Your task to perform on an android device: turn off sleep mode Image 0: 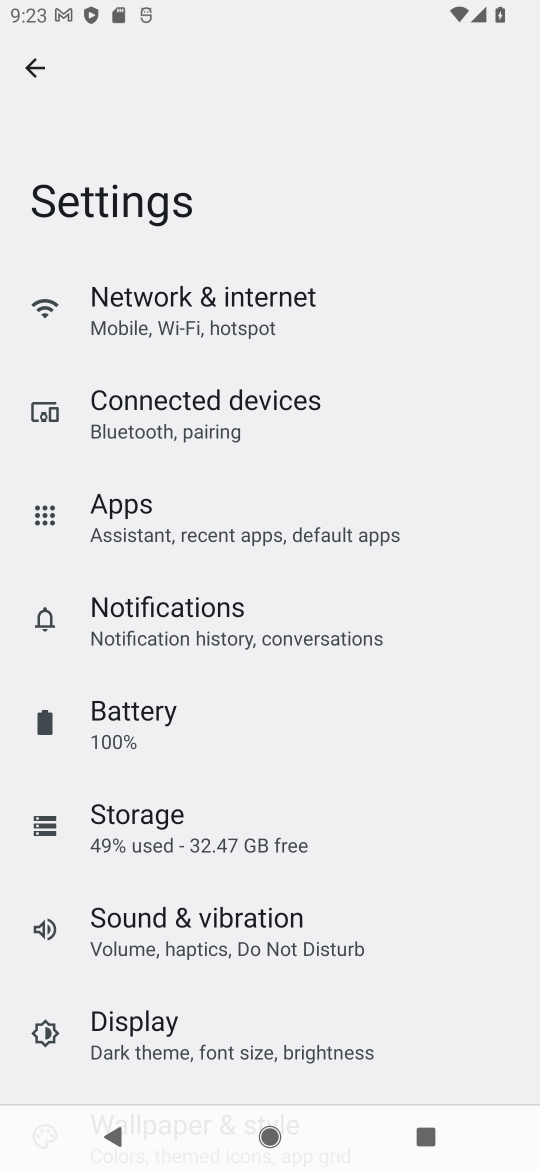
Step 0: press home button
Your task to perform on an android device: turn off sleep mode Image 1: 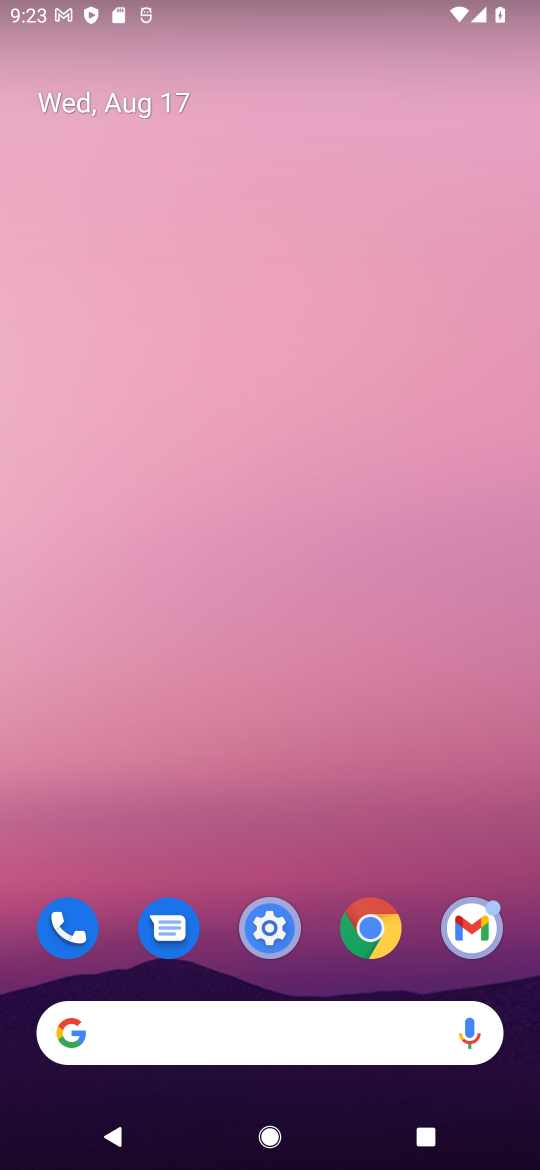
Step 1: click (329, 868)
Your task to perform on an android device: turn off sleep mode Image 2: 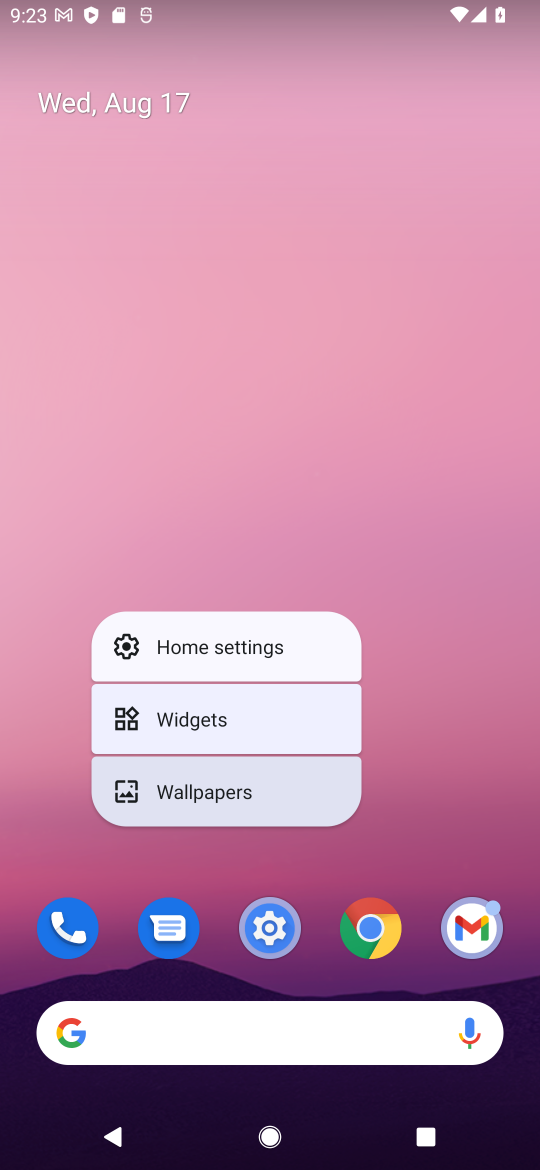
Step 2: click (254, 941)
Your task to perform on an android device: turn off sleep mode Image 3: 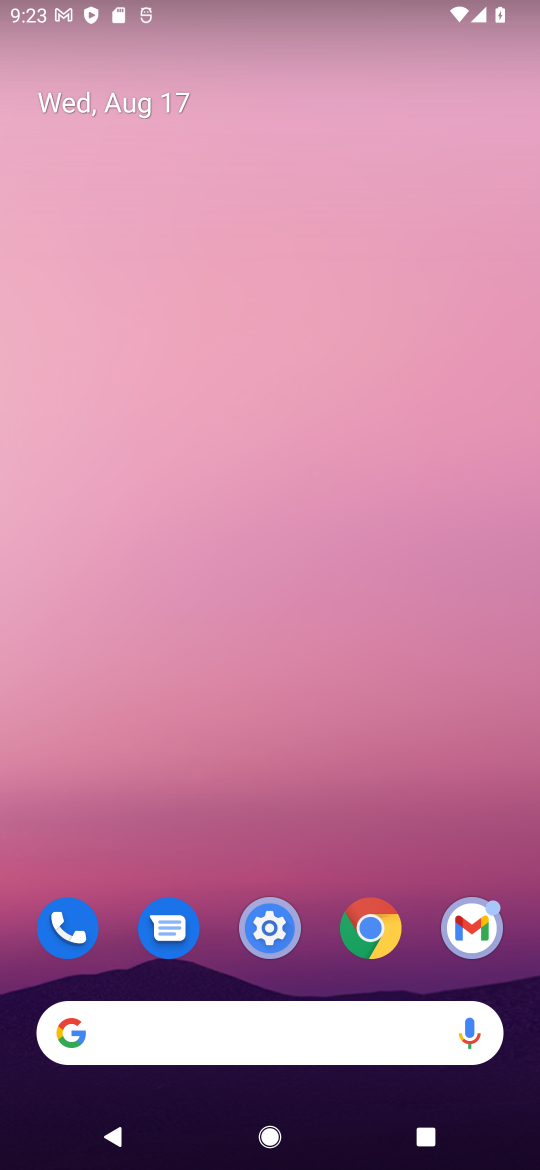
Step 3: click (254, 941)
Your task to perform on an android device: turn off sleep mode Image 4: 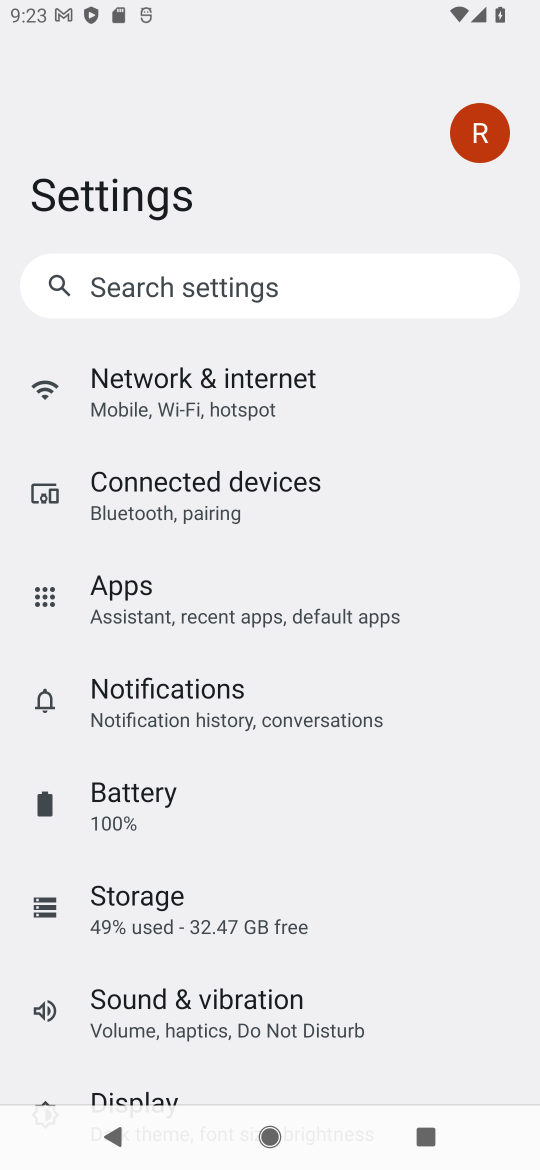
Step 4: drag from (227, 962) to (179, 808)
Your task to perform on an android device: turn off sleep mode Image 5: 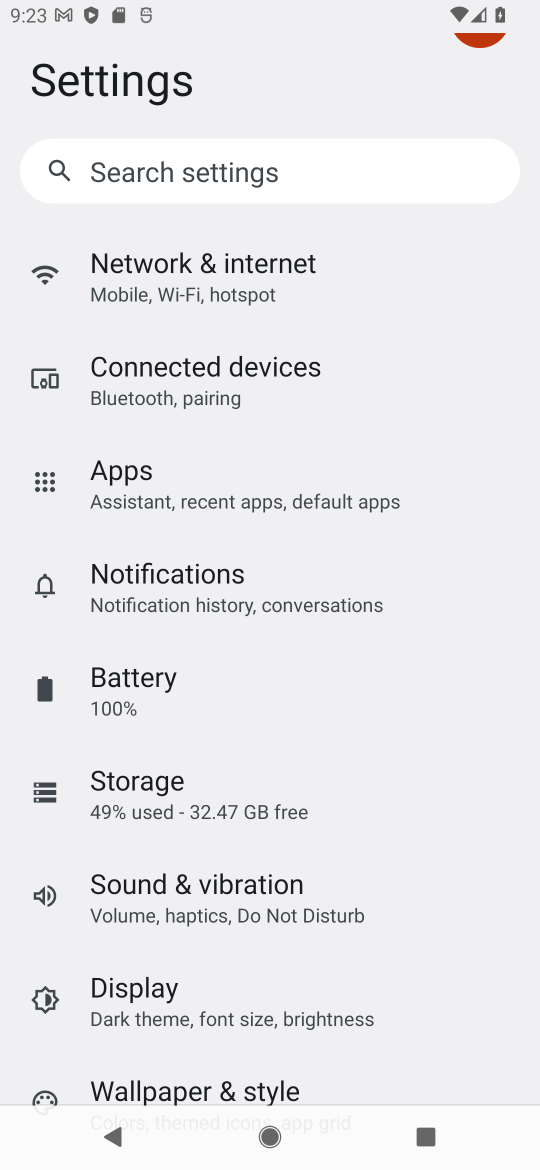
Step 5: click (180, 1015)
Your task to perform on an android device: turn off sleep mode Image 6: 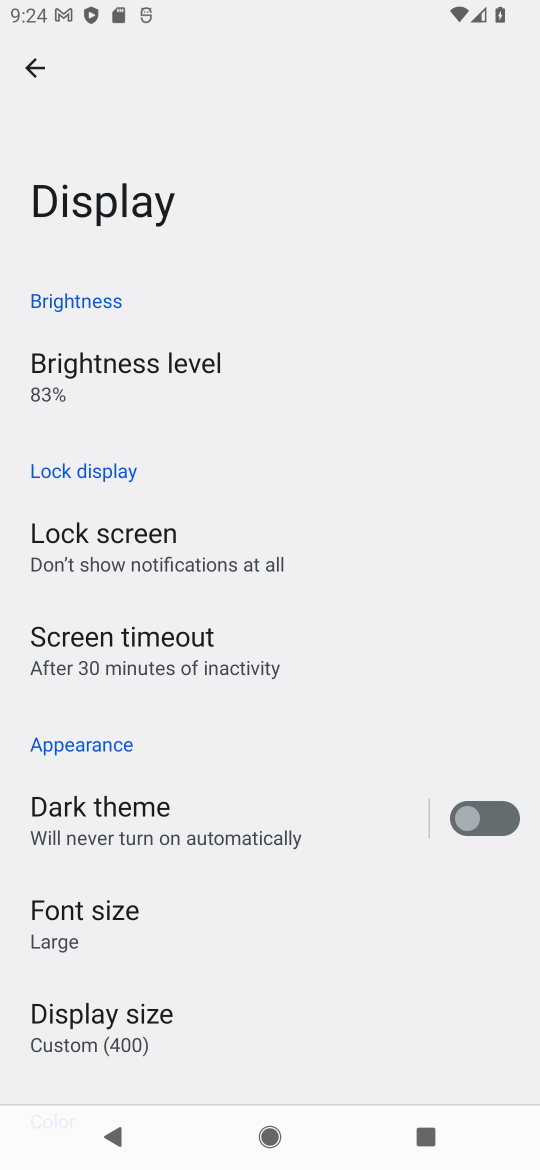
Step 6: task complete